Your task to perform on an android device: toggle sleep mode Image 0: 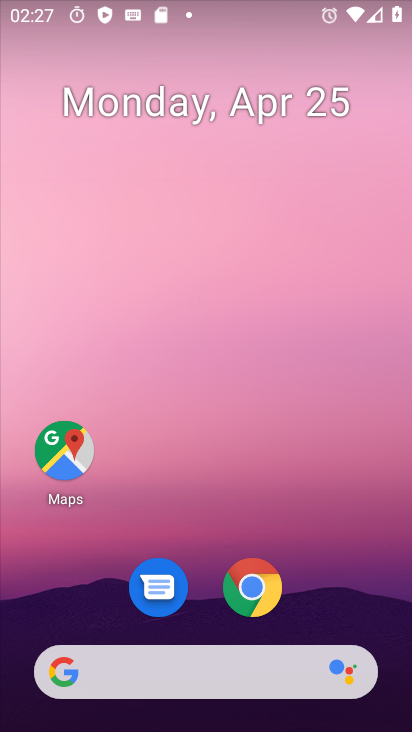
Step 0: drag from (357, 595) to (359, 174)
Your task to perform on an android device: toggle sleep mode Image 1: 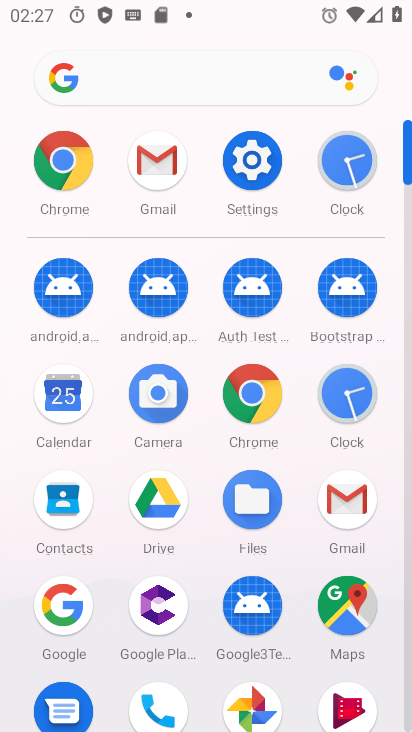
Step 1: click (257, 169)
Your task to perform on an android device: toggle sleep mode Image 2: 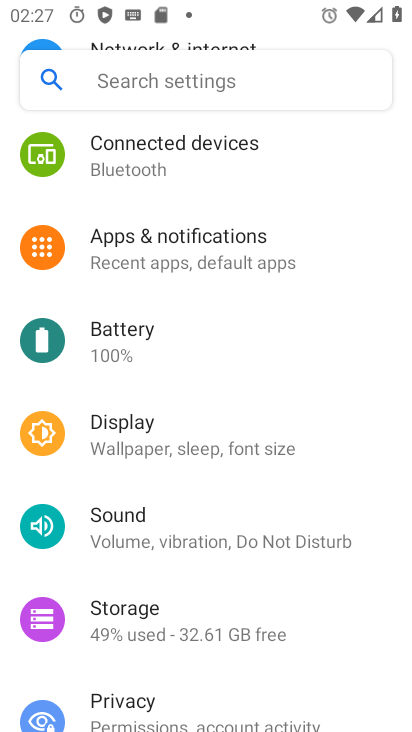
Step 2: click (229, 436)
Your task to perform on an android device: toggle sleep mode Image 3: 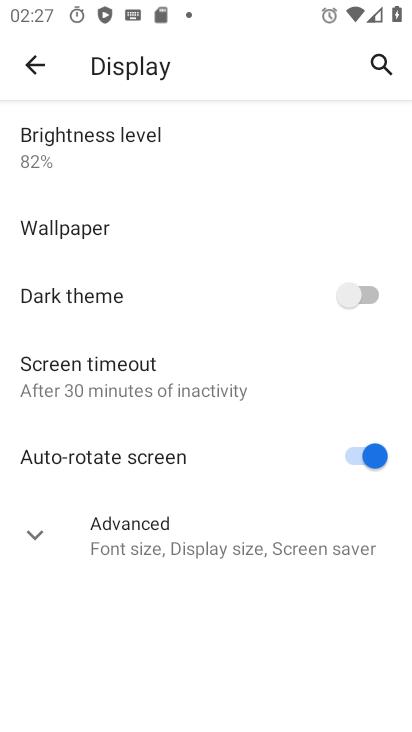
Step 3: click (115, 383)
Your task to perform on an android device: toggle sleep mode Image 4: 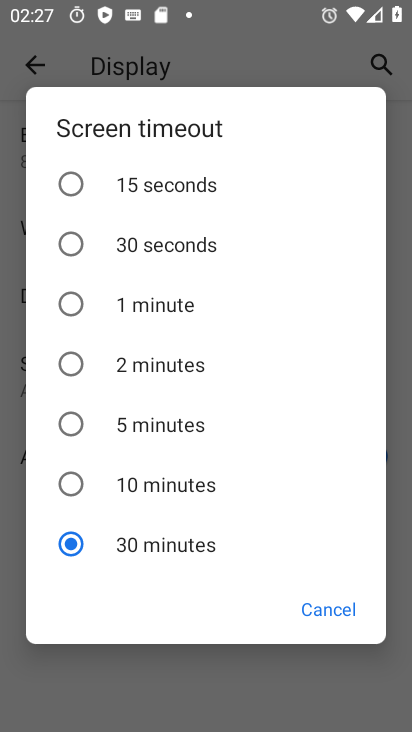
Step 4: click (146, 477)
Your task to perform on an android device: toggle sleep mode Image 5: 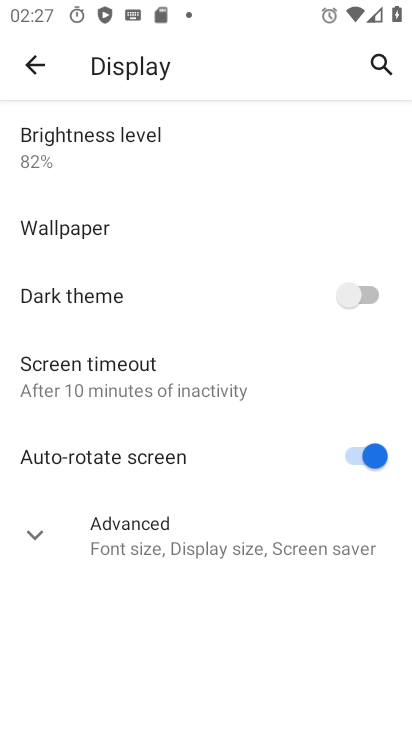
Step 5: task complete